Your task to perform on an android device: open app "Expedia: Hotels, Flights & Car" (install if not already installed) Image 0: 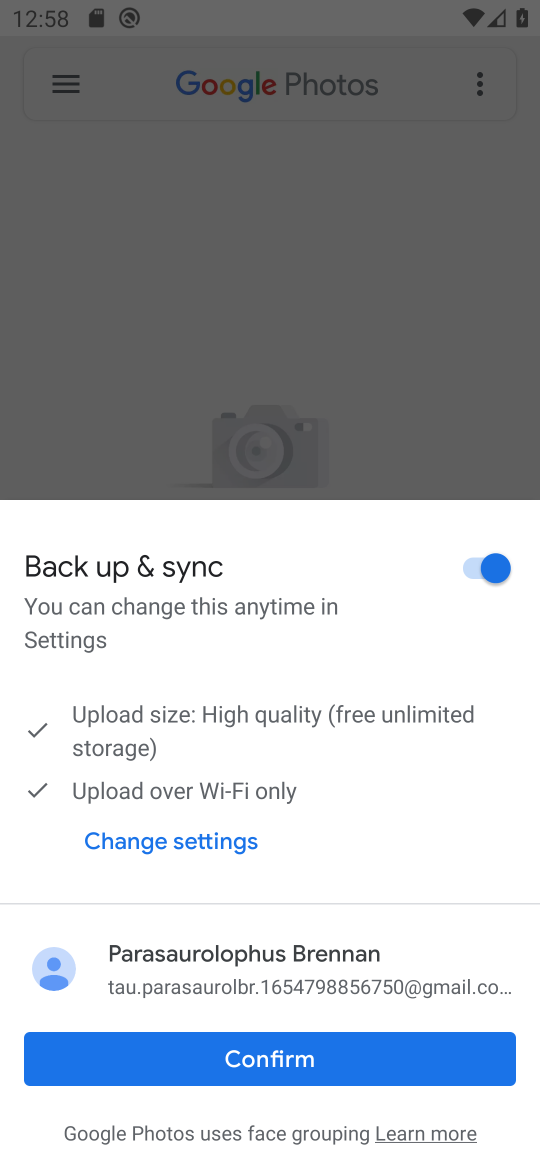
Step 0: press home button
Your task to perform on an android device: open app "Expedia: Hotels, Flights & Car" (install if not already installed) Image 1: 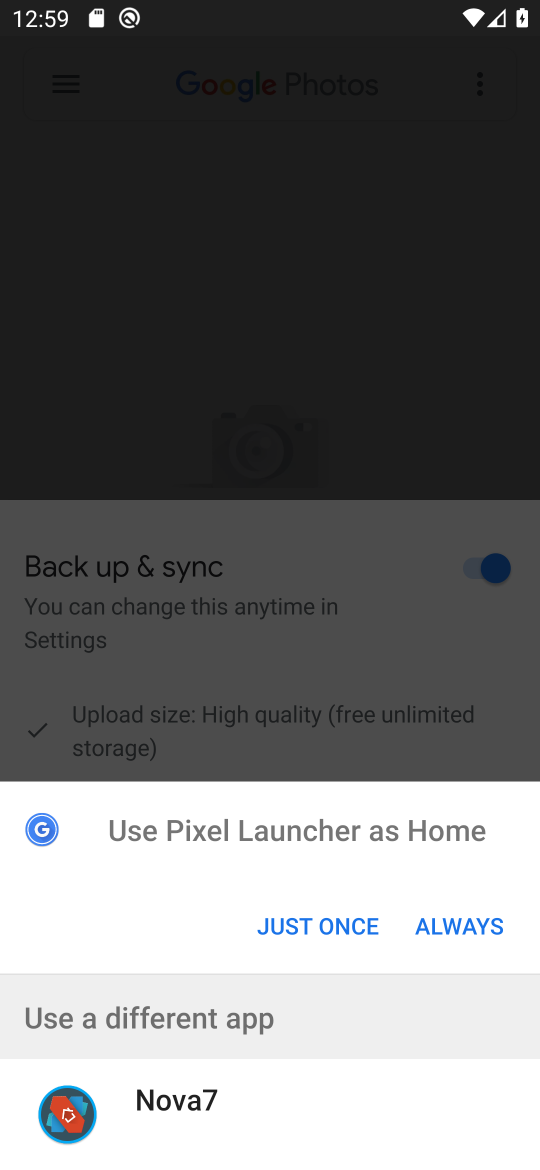
Step 1: click (289, 909)
Your task to perform on an android device: open app "Expedia: Hotels, Flights & Car" (install if not already installed) Image 2: 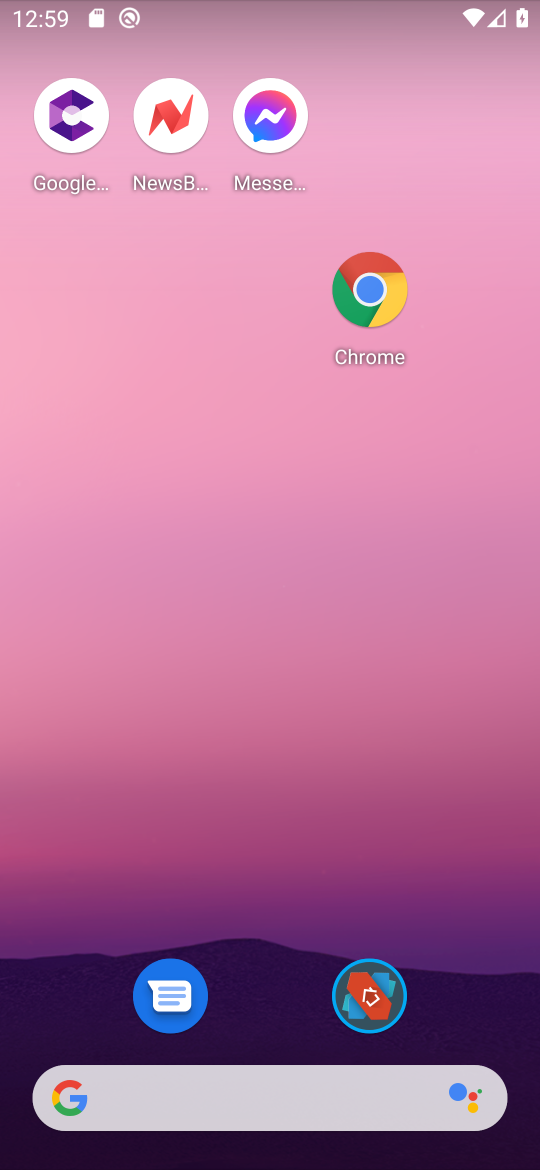
Step 2: drag from (351, 889) to (368, 128)
Your task to perform on an android device: open app "Expedia: Hotels, Flights & Car" (install if not already installed) Image 3: 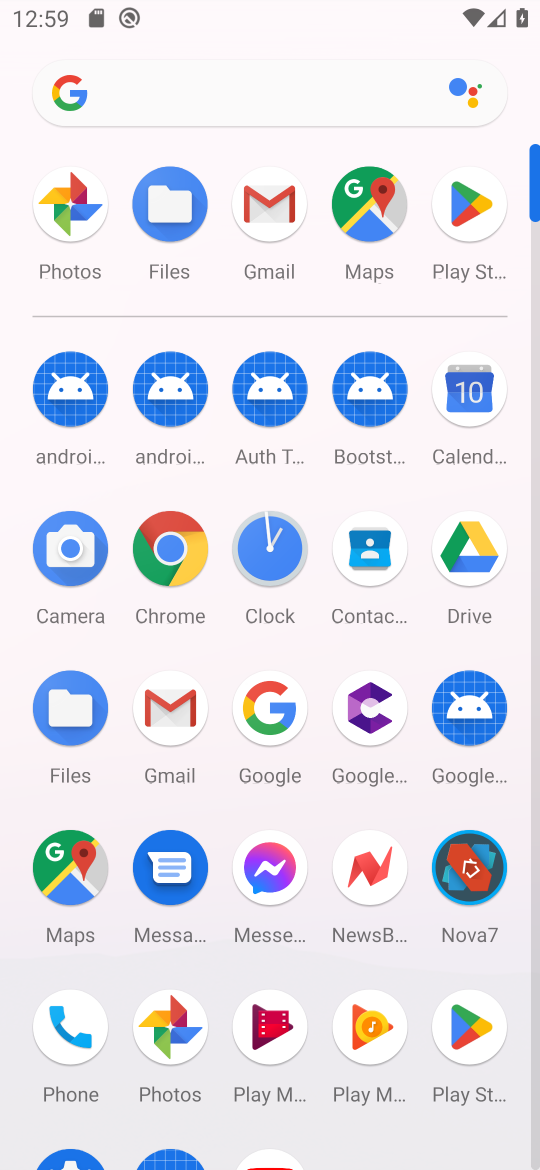
Step 3: click (468, 207)
Your task to perform on an android device: open app "Expedia: Hotels, Flights & Car" (install if not already installed) Image 4: 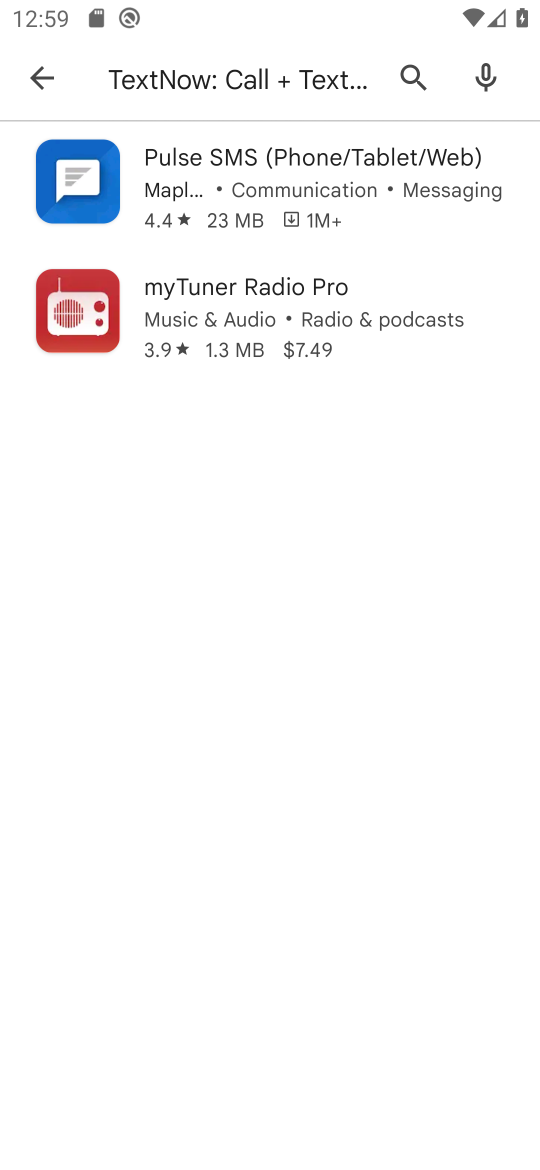
Step 4: press back button
Your task to perform on an android device: open app "Expedia: Hotels, Flights & Car" (install if not already installed) Image 5: 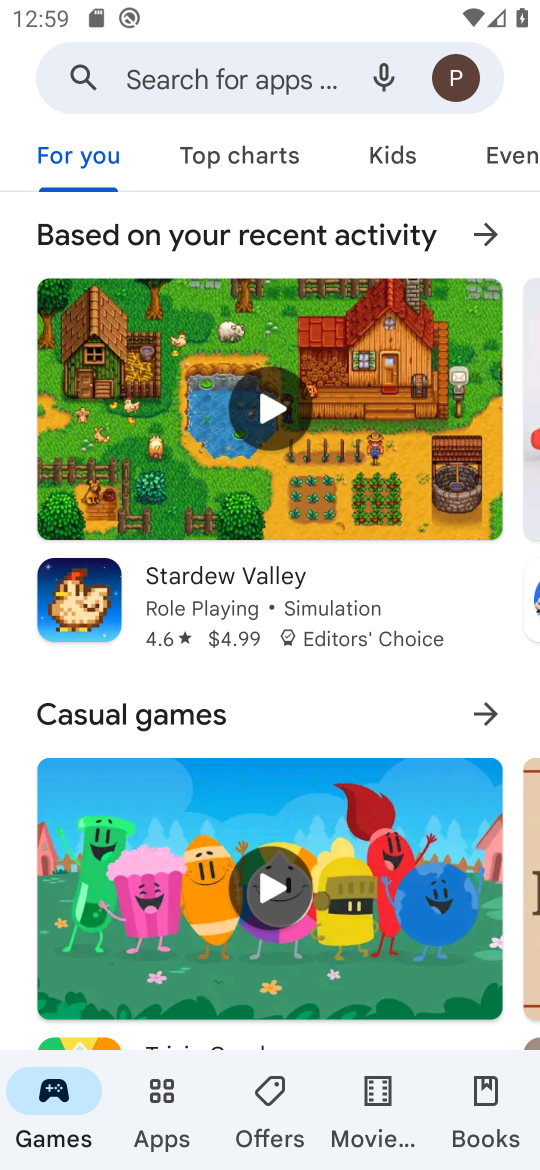
Step 5: click (190, 59)
Your task to perform on an android device: open app "Expedia: Hotels, Flights & Car" (install if not already installed) Image 6: 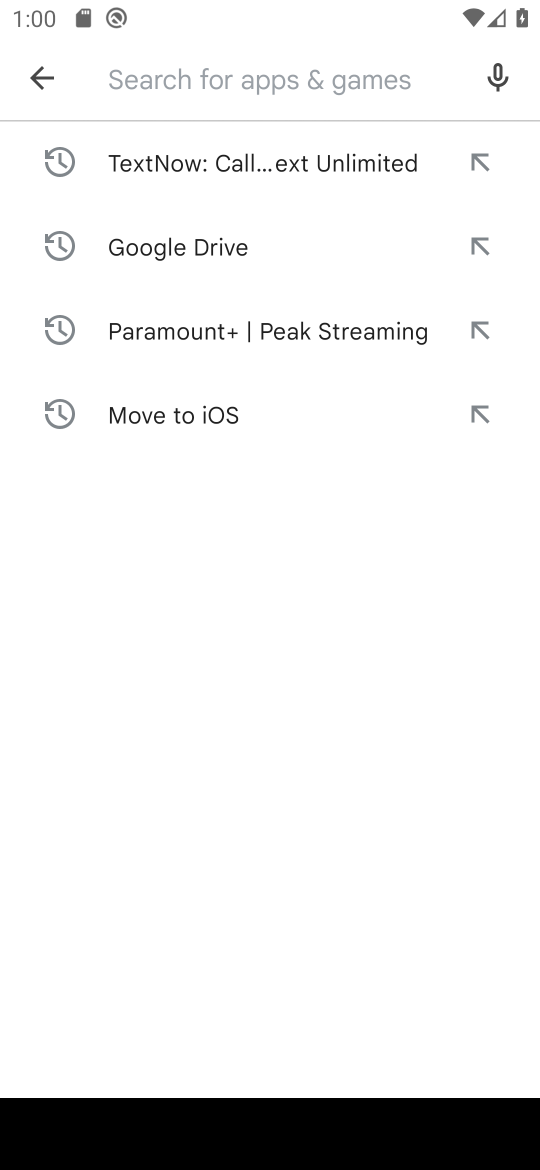
Step 6: type "Expedia: Hotels, Flights & Car""
Your task to perform on an android device: open app "Expedia: Hotels, Flights & Car" (install if not already installed) Image 7: 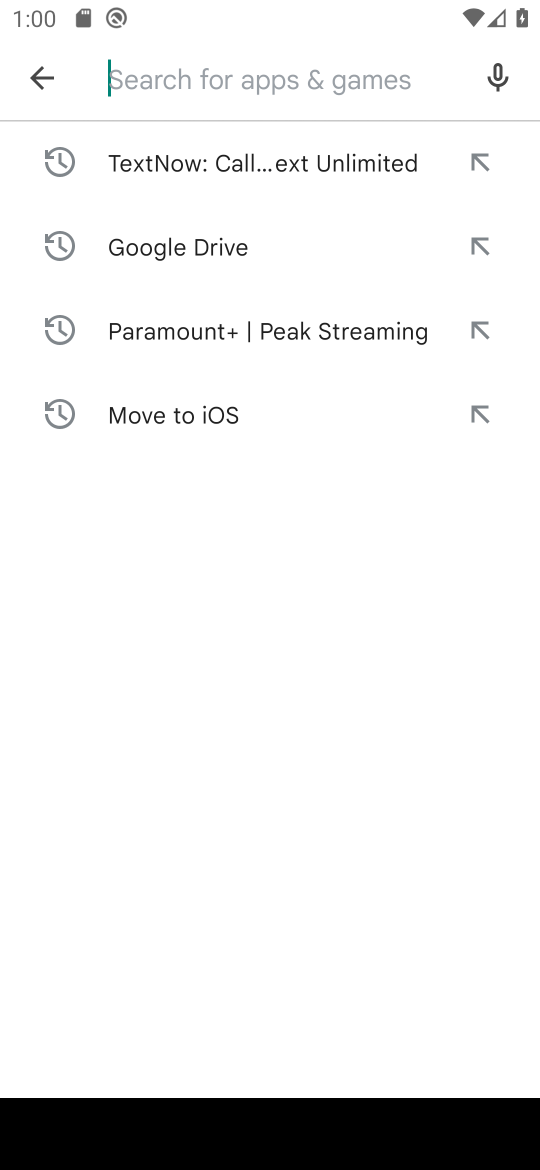
Step 7: press enter
Your task to perform on an android device: open app "Expedia: Hotels, Flights & Car" (install if not already installed) Image 8: 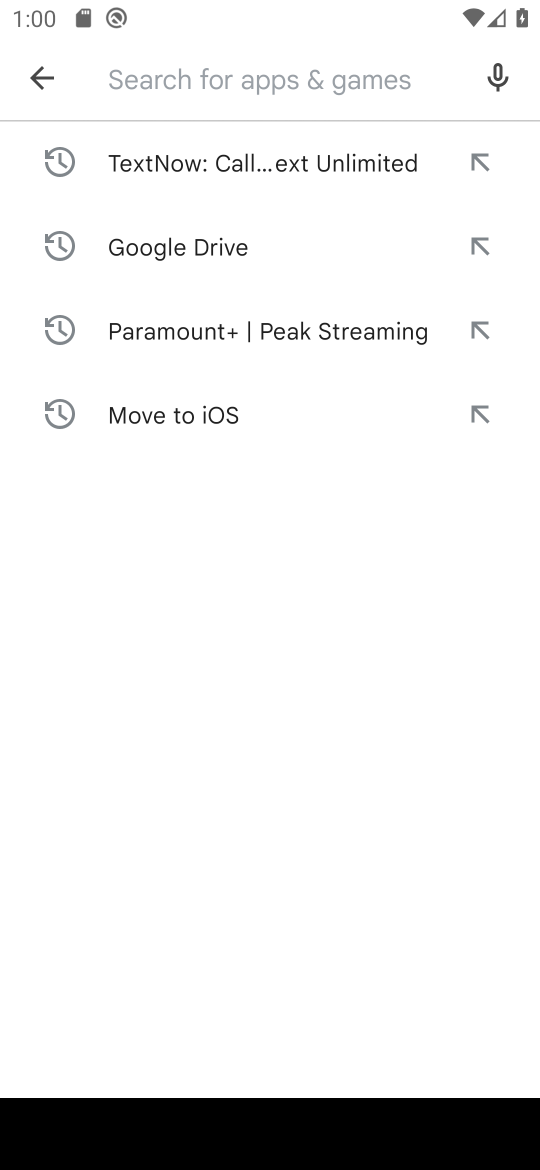
Step 8: type "Expedia: Hotels, Flights & Car"
Your task to perform on an android device: open app "Expedia: Hotels, Flights & Car" (install if not already installed) Image 9: 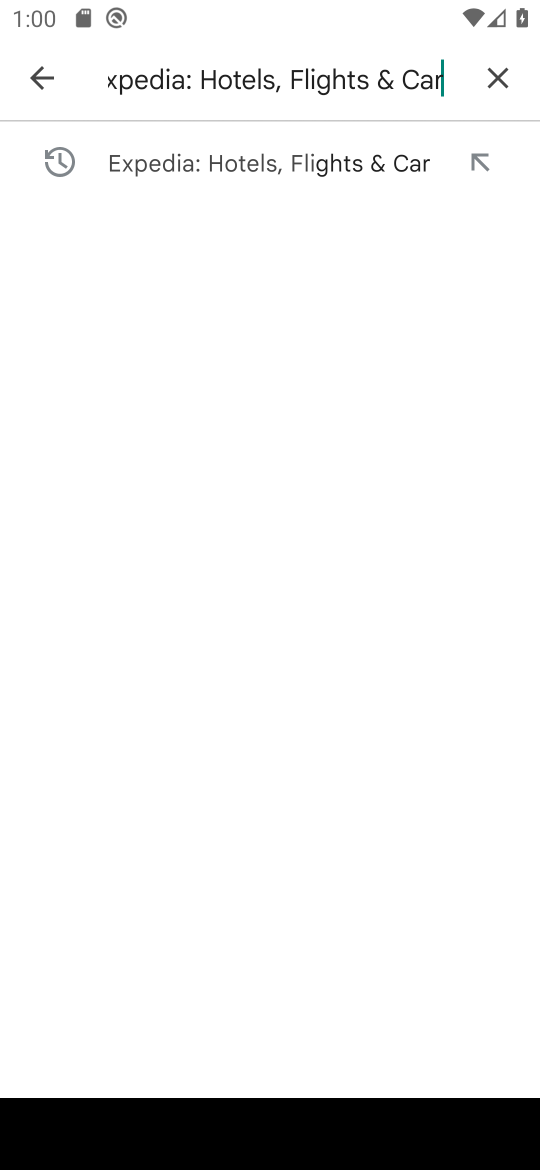
Step 9: press enter
Your task to perform on an android device: open app "Expedia: Hotels, Flights & Car" (install if not already installed) Image 10: 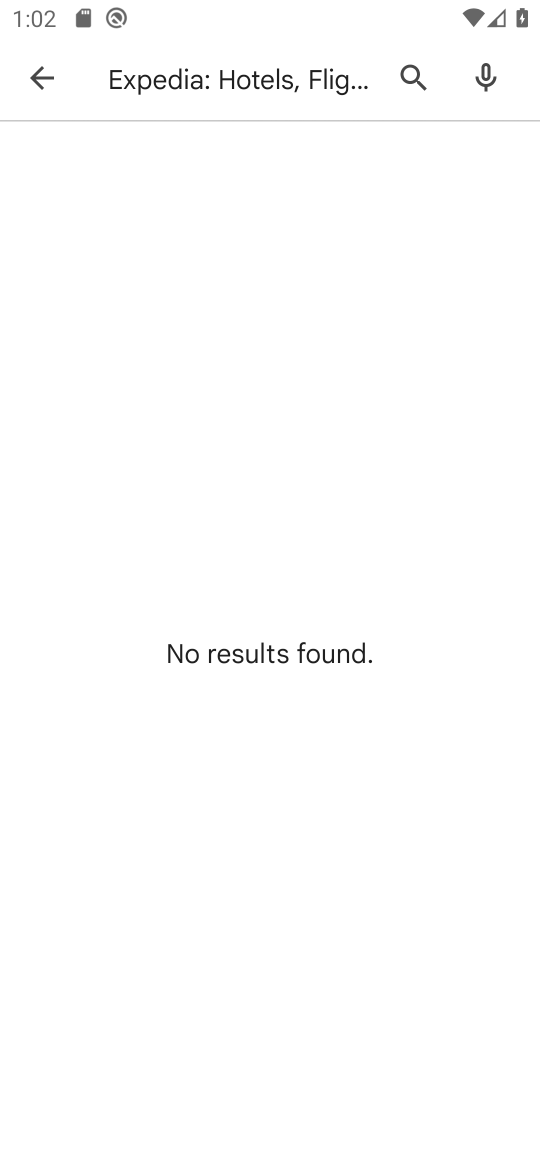
Step 10: task complete